Your task to perform on an android device: remove spam from my inbox in the gmail app Image 0: 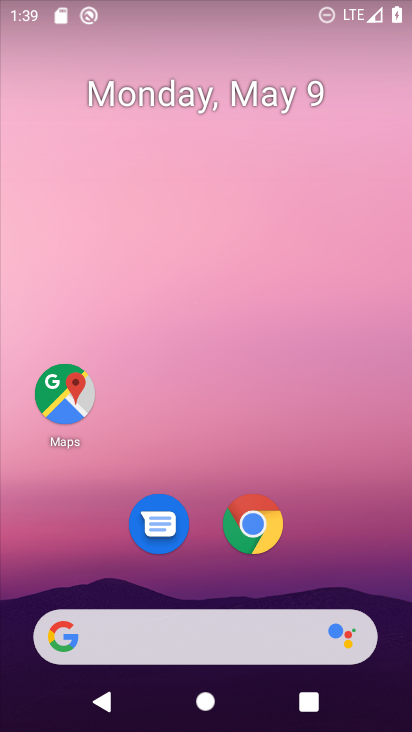
Step 0: drag from (352, 532) to (251, 51)
Your task to perform on an android device: remove spam from my inbox in the gmail app Image 1: 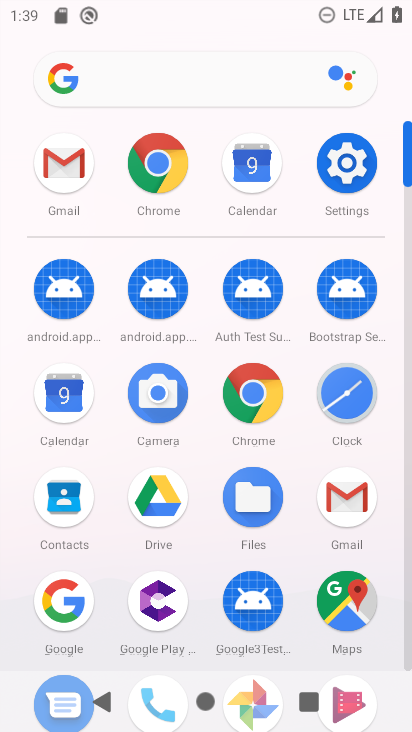
Step 1: click (51, 159)
Your task to perform on an android device: remove spam from my inbox in the gmail app Image 2: 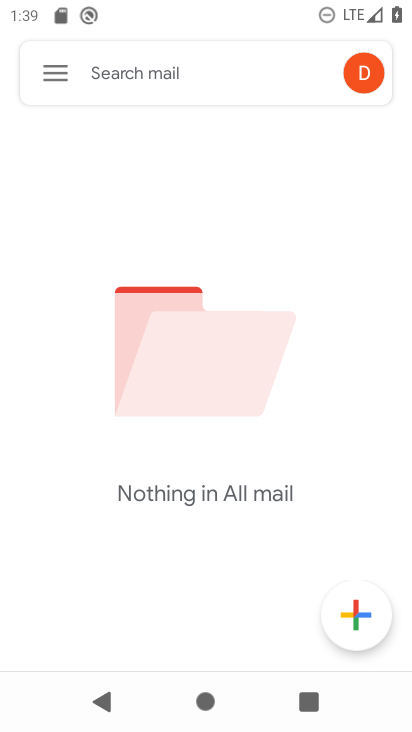
Step 2: click (53, 74)
Your task to perform on an android device: remove spam from my inbox in the gmail app Image 3: 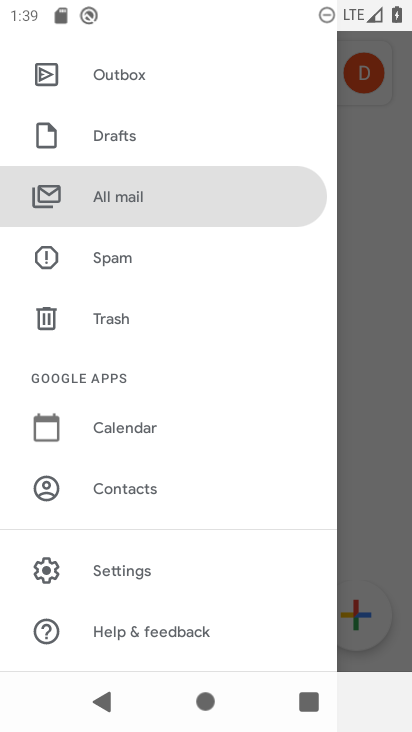
Step 3: click (148, 253)
Your task to perform on an android device: remove spam from my inbox in the gmail app Image 4: 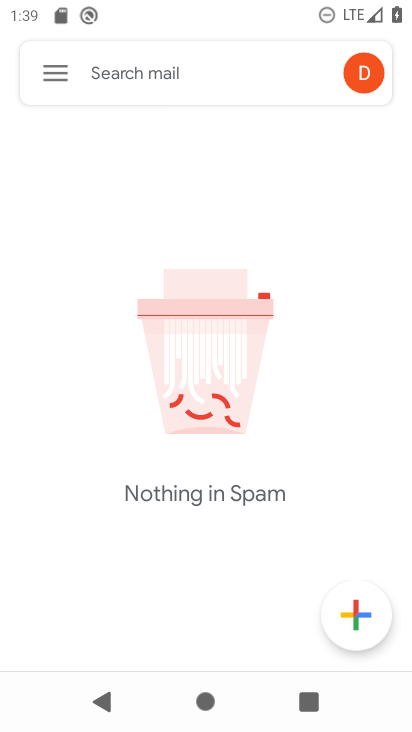
Step 4: task complete